Your task to perform on an android device: turn vacation reply on in the gmail app Image 0: 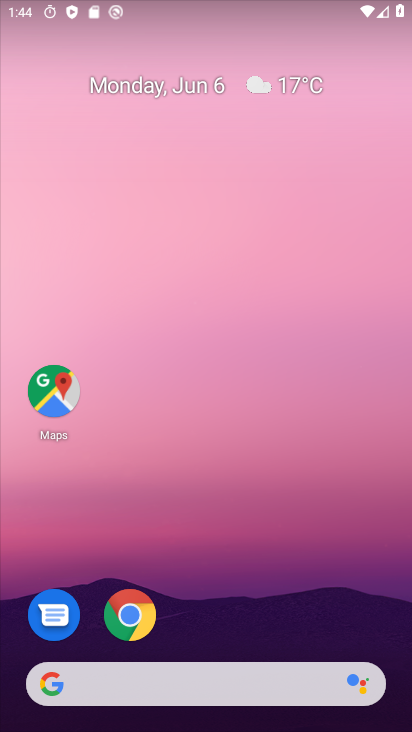
Step 0: drag from (199, 628) to (245, 281)
Your task to perform on an android device: turn vacation reply on in the gmail app Image 1: 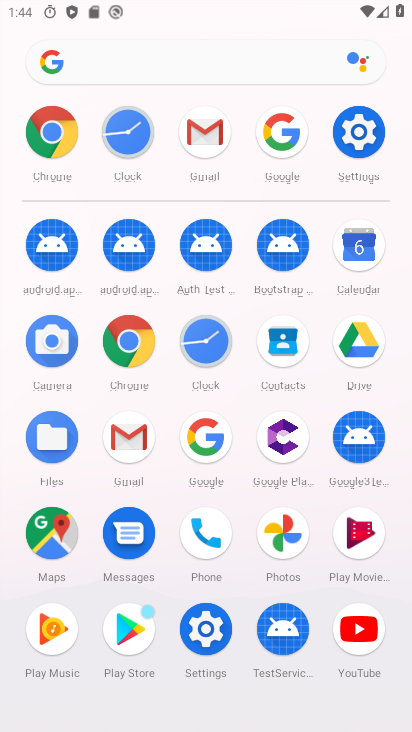
Step 1: click (126, 432)
Your task to perform on an android device: turn vacation reply on in the gmail app Image 2: 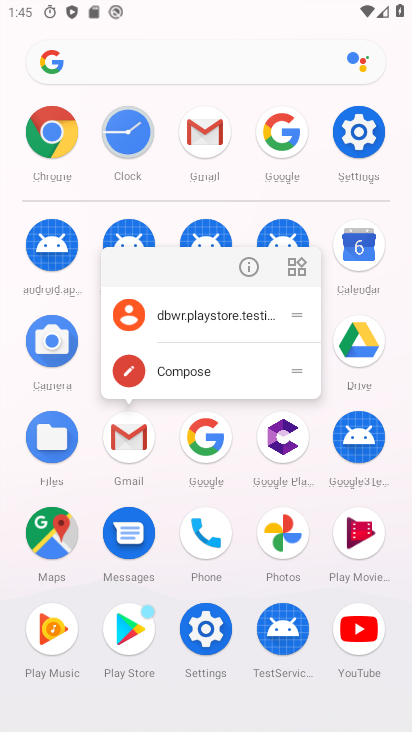
Step 2: click (245, 265)
Your task to perform on an android device: turn vacation reply on in the gmail app Image 3: 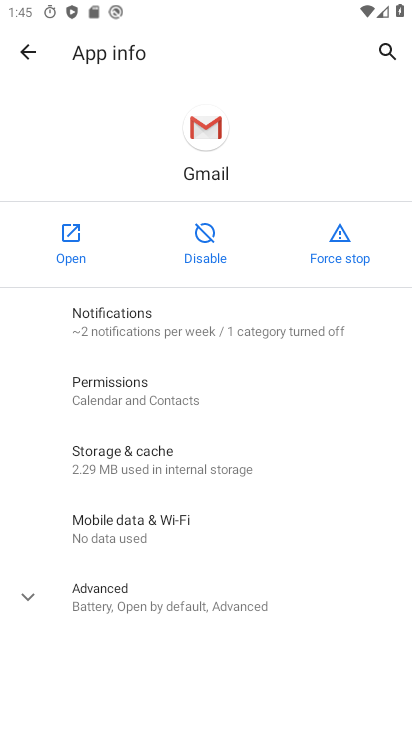
Step 3: click (76, 239)
Your task to perform on an android device: turn vacation reply on in the gmail app Image 4: 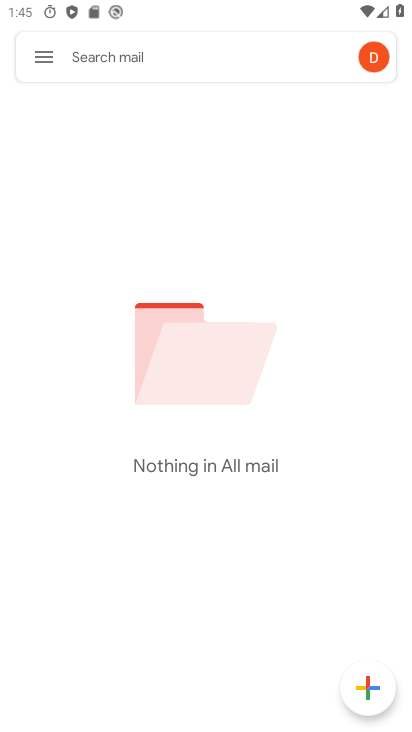
Step 4: click (52, 47)
Your task to perform on an android device: turn vacation reply on in the gmail app Image 5: 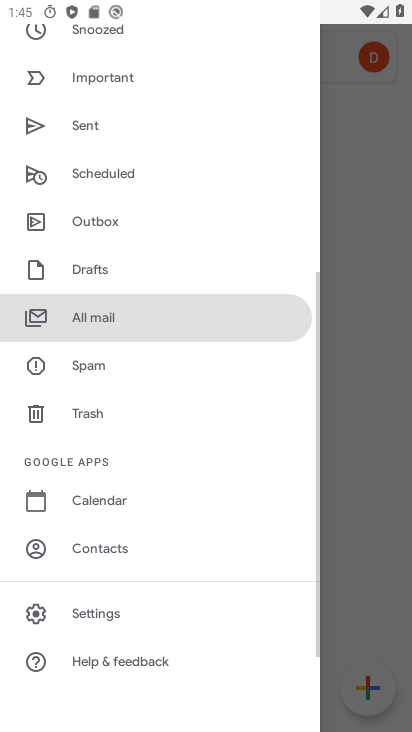
Step 5: click (112, 605)
Your task to perform on an android device: turn vacation reply on in the gmail app Image 6: 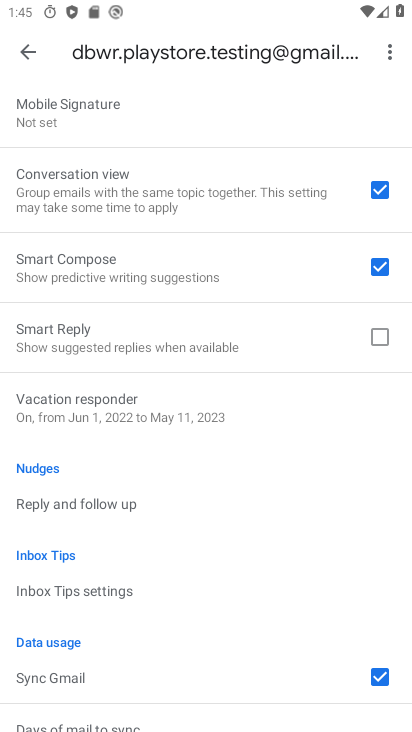
Step 6: drag from (196, 515) to (277, 73)
Your task to perform on an android device: turn vacation reply on in the gmail app Image 7: 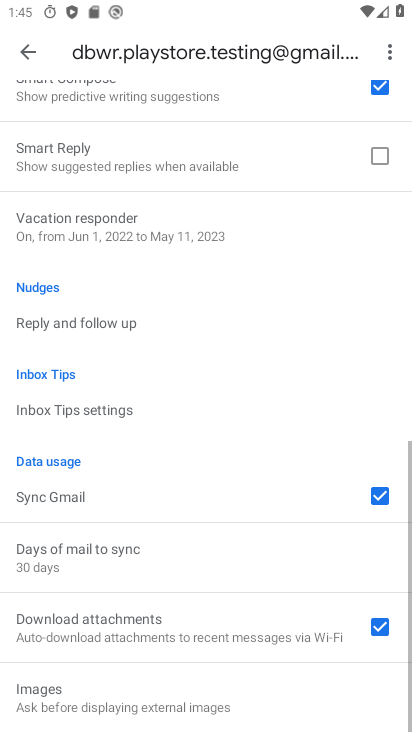
Step 7: drag from (224, 188) to (275, 730)
Your task to perform on an android device: turn vacation reply on in the gmail app Image 8: 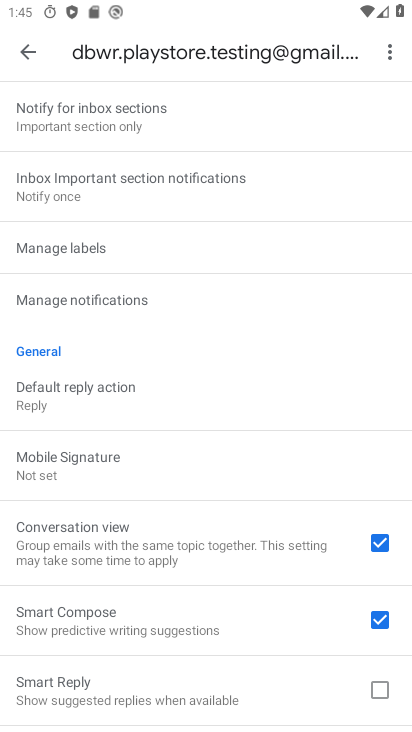
Step 8: drag from (210, 570) to (313, 170)
Your task to perform on an android device: turn vacation reply on in the gmail app Image 9: 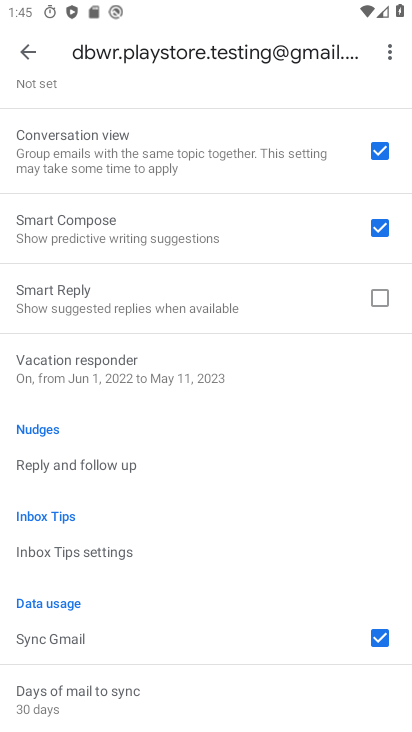
Step 9: click (115, 369)
Your task to perform on an android device: turn vacation reply on in the gmail app Image 10: 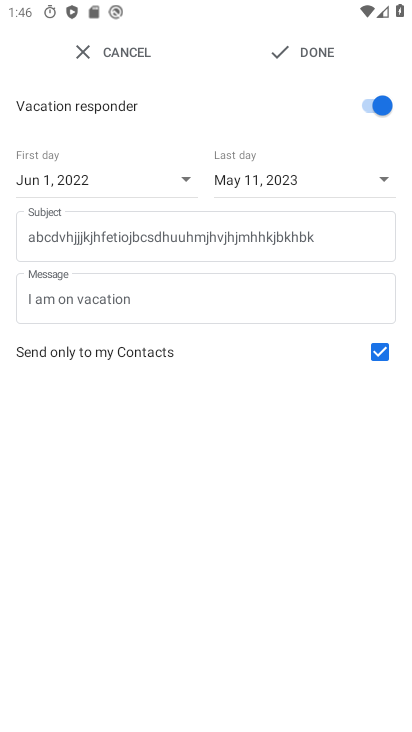
Step 10: drag from (267, 428) to (321, 135)
Your task to perform on an android device: turn vacation reply on in the gmail app Image 11: 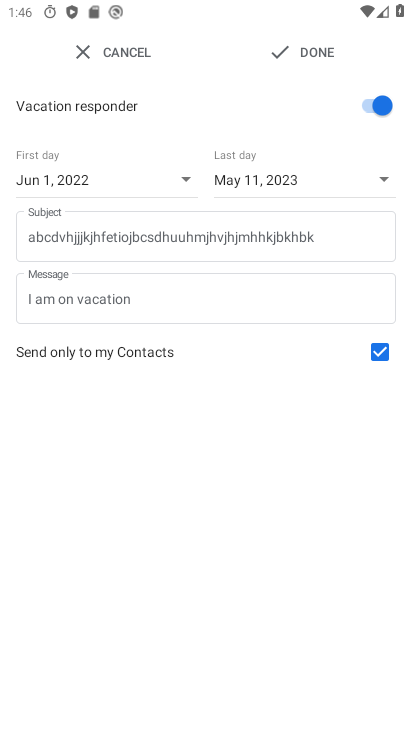
Step 11: click (302, 50)
Your task to perform on an android device: turn vacation reply on in the gmail app Image 12: 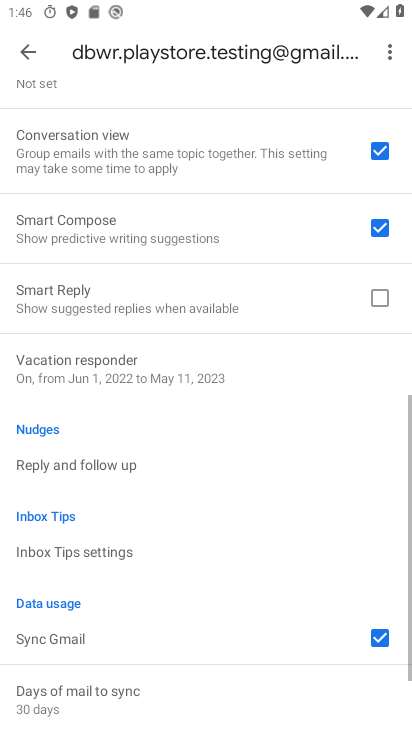
Step 12: task complete